Your task to perform on an android device: turn smart compose on in the gmail app Image 0: 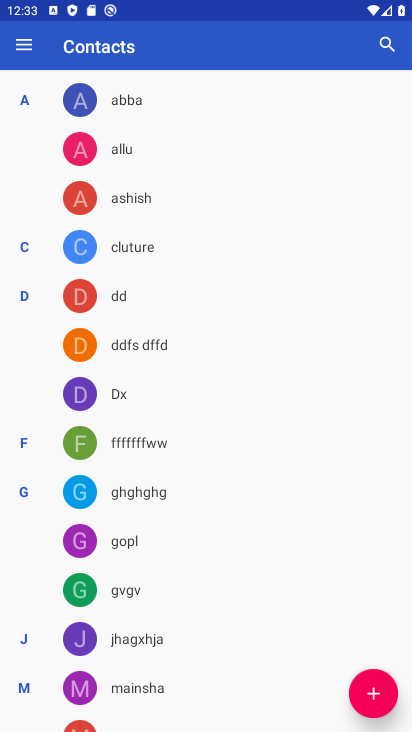
Step 0: press home button
Your task to perform on an android device: turn smart compose on in the gmail app Image 1: 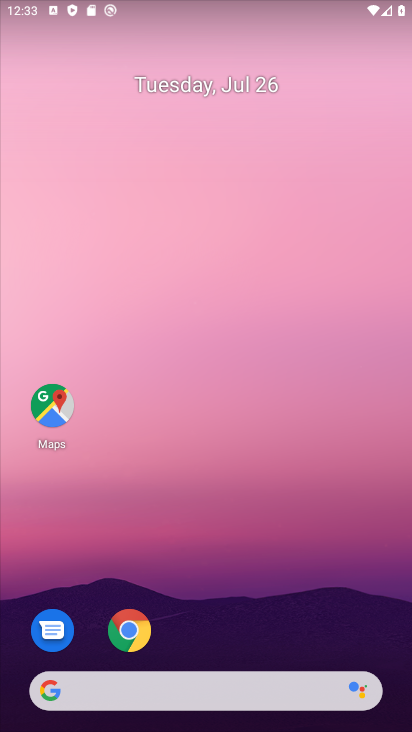
Step 1: drag from (390, 653) to (346, 278)
Your task to perform on an android device: turn smart compose on in the gmail app Image 2: 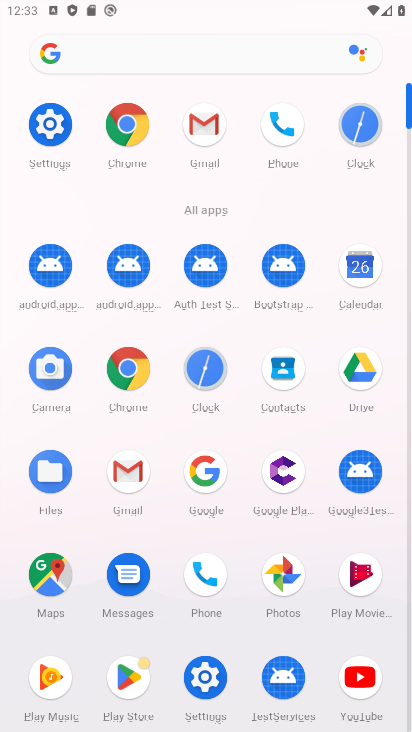
Step 2: click (124, 472)
Your task to perform on an android device: turn smart compose on in the gmail app Image 3: 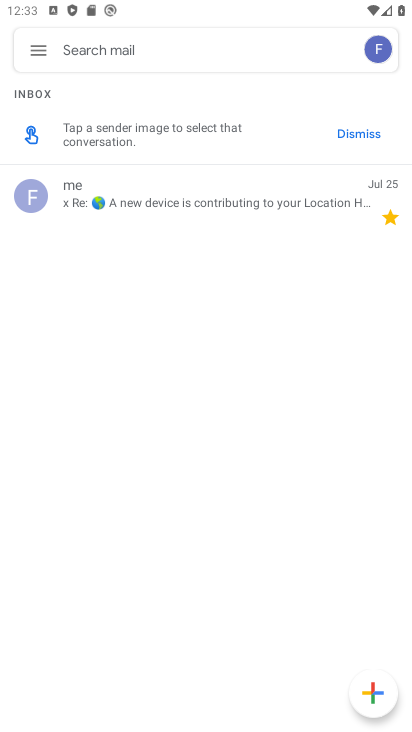
Step 3: click (39, 55)
Your task to perform on an android device: turn smart compose on in the gmail app Image 4: 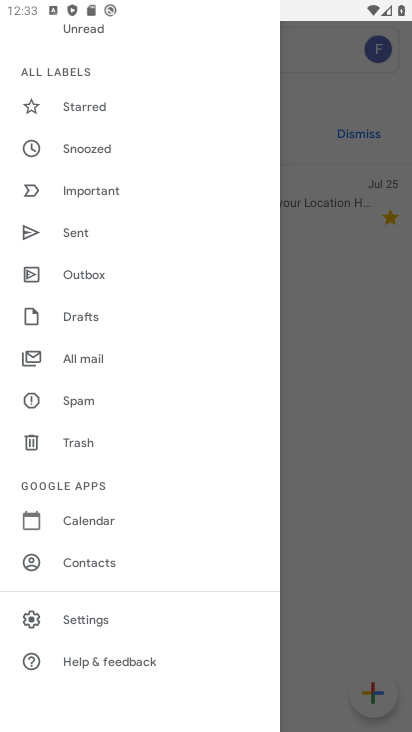
Step 4: click (90, 620)
Your task to perform on an android device: turn smart compose on in the gmail app Image 5: 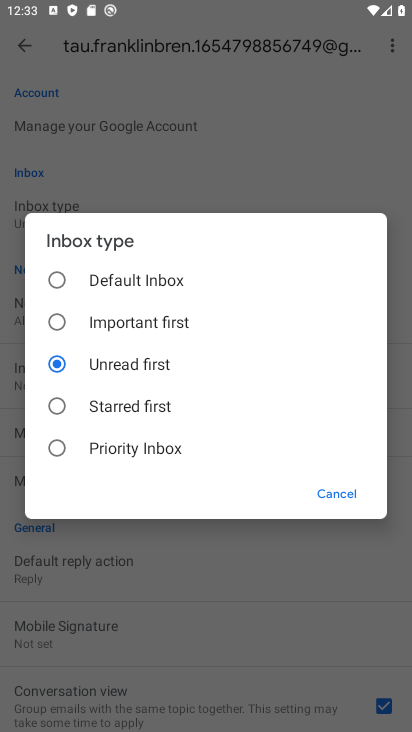
Step 5: click (329, 501)
Your task to perform on an android device: turn smart compose on in the gmail app Image 6: 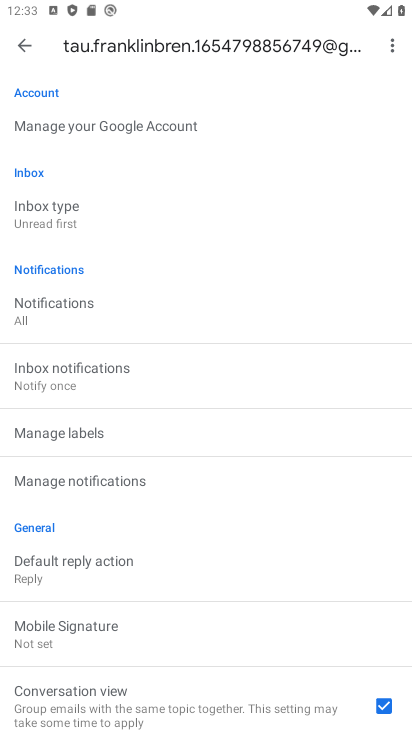
Step 6: task complete